Your task to perform on an android device: turn on bluetooth scan Image 0: 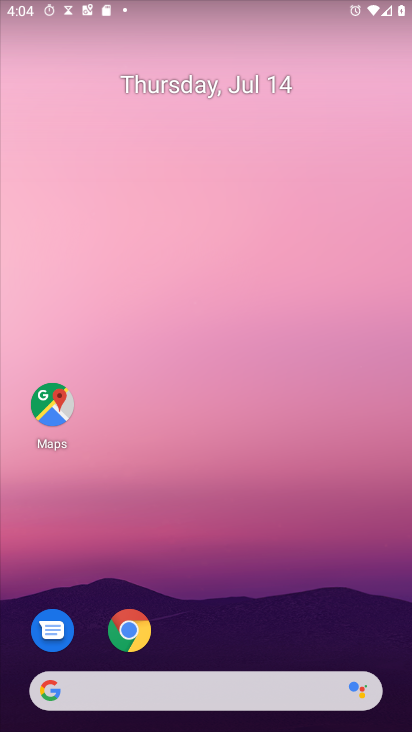
Step 0: drag from (223, 726) to (223, 201)
Your task to perform on an android device: turn on bluetooth scan Image 1: 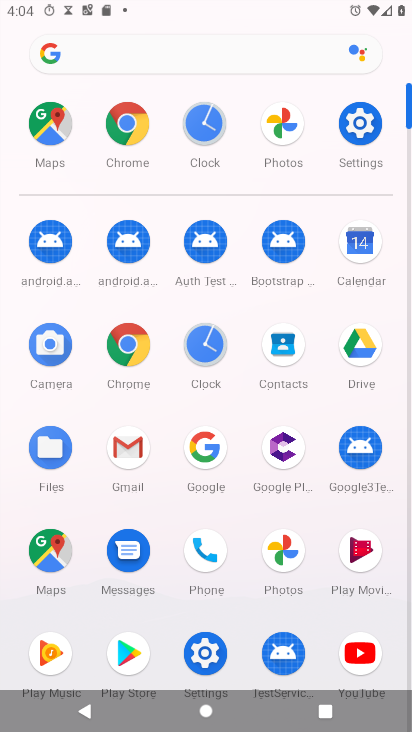
Step 1: click (363, 124)
Your task to perform on an android device: turn on bluetooth scan Image 2: 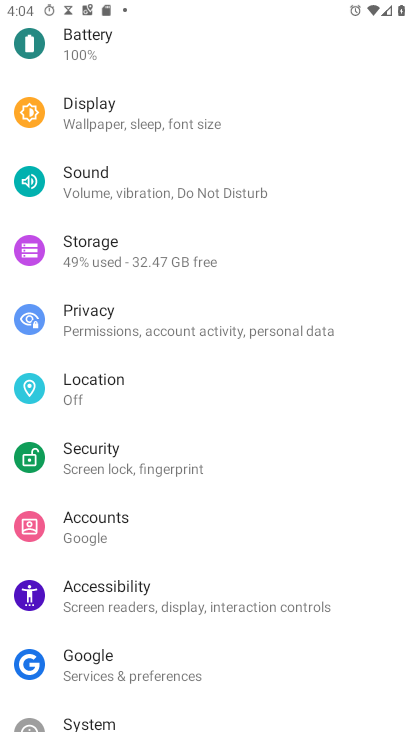
Step 2: click (101, 377)
Your task to perform on an android device: turn on bluetooth scan Image 3: 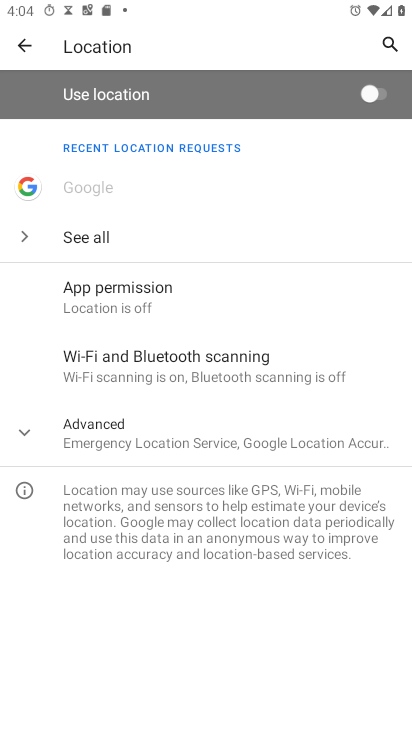
Step 3: click (246, 360)
Your task to perform on an android device: turn on bluetooth scan Image 4: 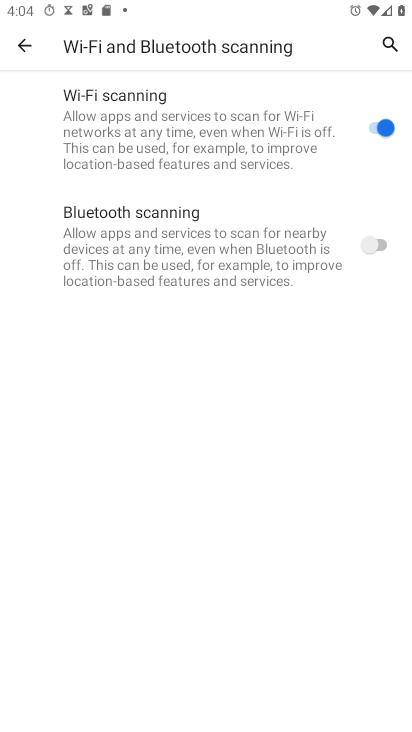
Step 4: click (385, 240)
Your task to perform on an android device: turn on bluetooth scan Image 5: 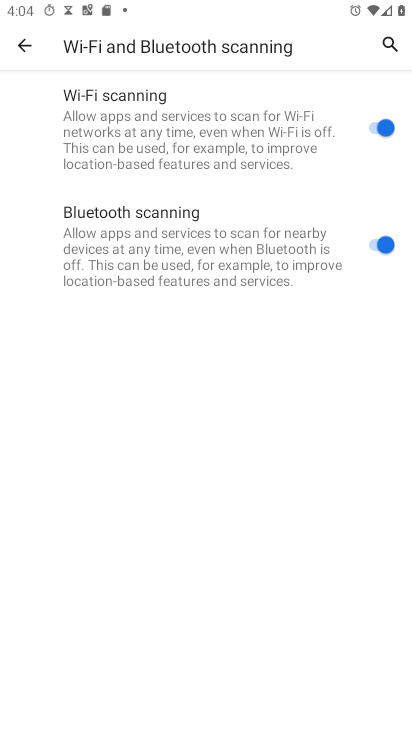
Step 5: task complete